Your task to perform on an android device: turn on the 24-hour format for clock Image 0: 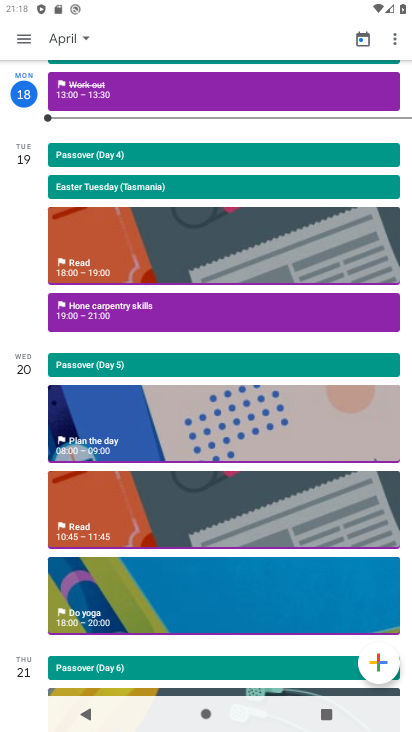
Step 0: press home button
Your task to perform on an android device: turn on the 24-hour format for clock Image 1: 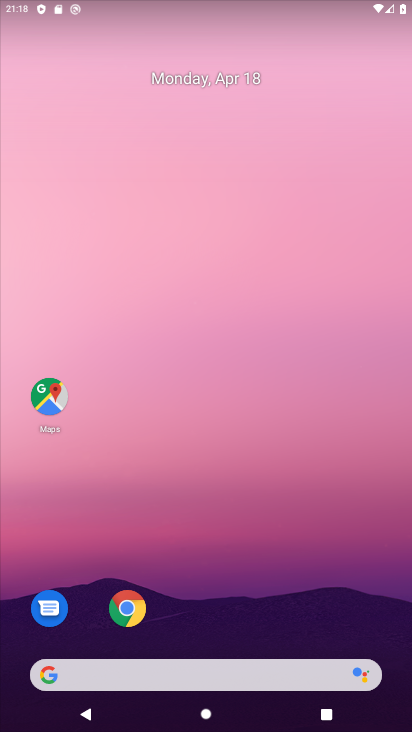
Step 1: drag from (216, 579) to (239, 118)
Your task to perform on an android device: turn on the 24-hour format for clock Image 2: 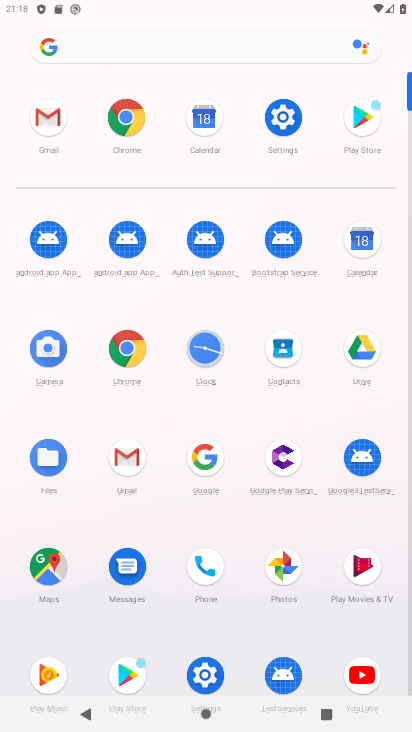
Step 2: click (202, 348)
Your task to perform on an android device: turn on the 24-hour format for clock Image 3: 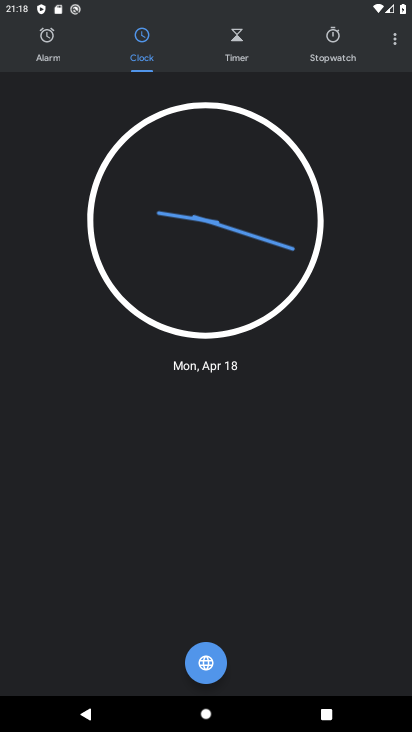
Step 3: click (393, 39)
Your task to perform on an android device: turn on the 24-hour format for clock Image 4: 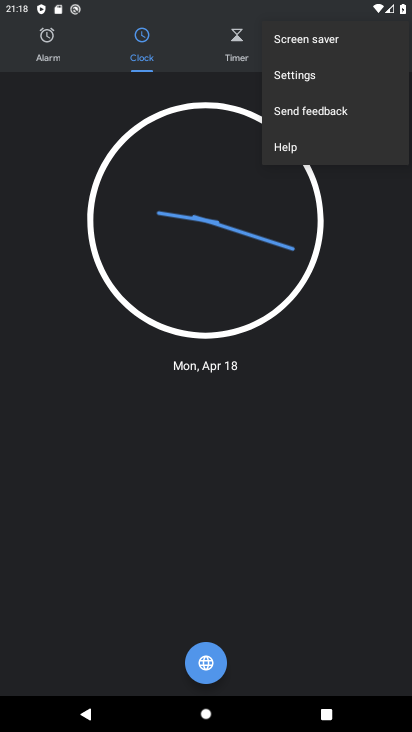
Step 4: click (302, 74)
Your task to perform on an android device: turn on the 24-hour format for clock Image 5: 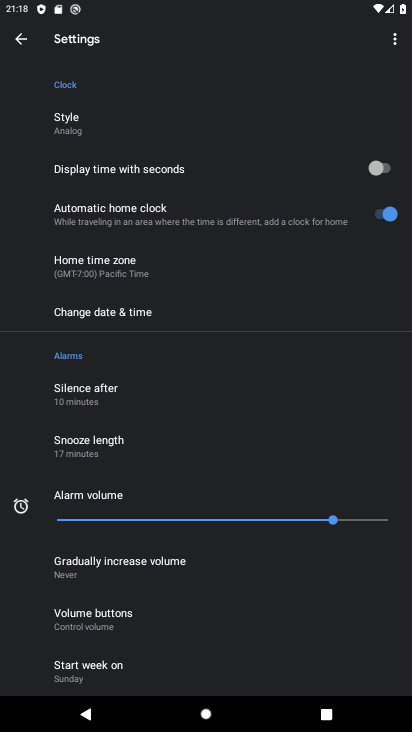
Step 5: click (110, 311)
Your task to perform on an android device: turn on the 24-hour format for clock Image 6: 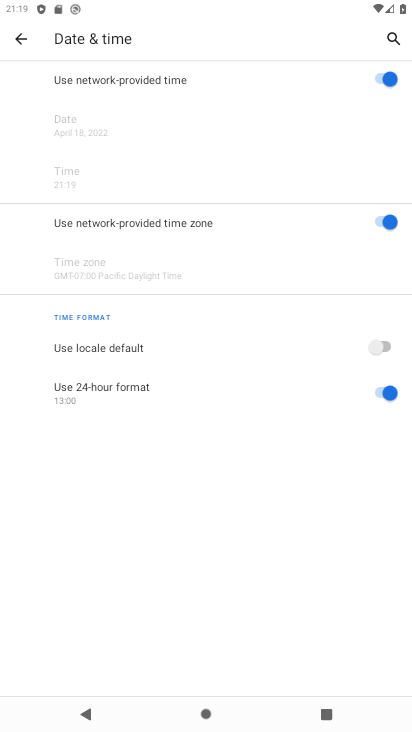
Step 6: task complete